Your task to perform on an android device: Open Chrome and go to settings Image 0: 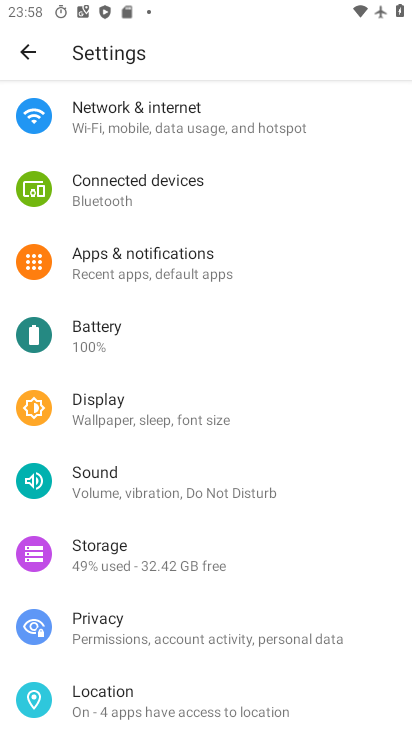
Step 0: drag from (198, 602) to (245, 176)
Your task to perform on an android device: Open Chrome and go to settings Image 1: 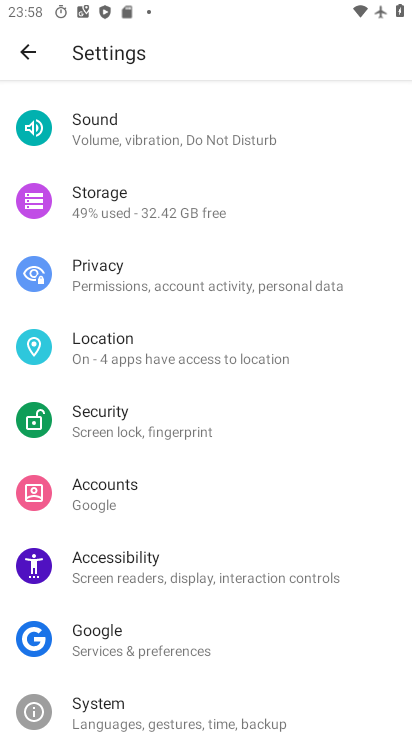
Step 1: press home button
Your task to perform on an android device: Open Chrome and go to settings Image 2: 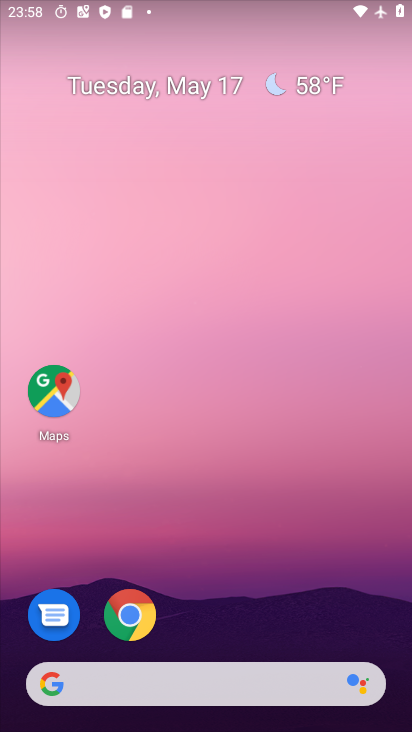
Step 2: click (144, 625)
Your task to perform on an android device: Open Chrome and go to settings Image 3: 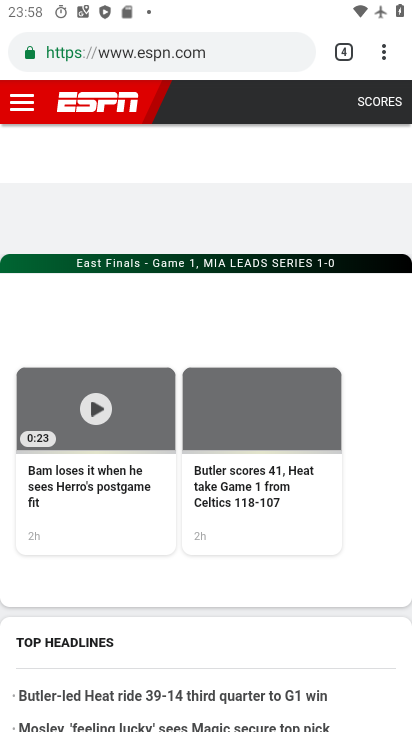
Step 3: task complete